Your task to perform on an android device: Go to location settings Image 0: 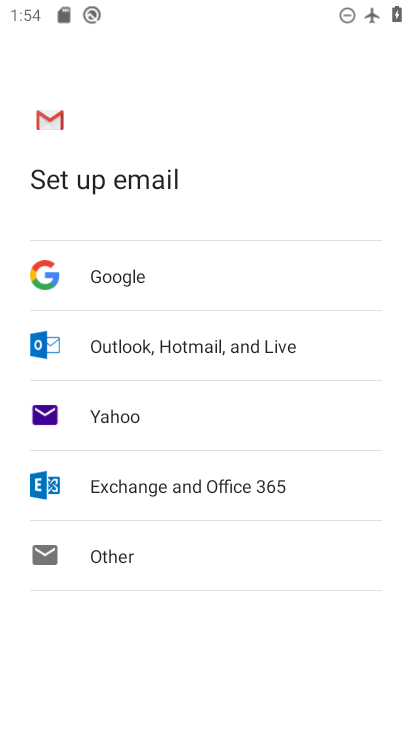
Step 0: press home button
Your task to perform on an android device: Go to location settings Image 1: 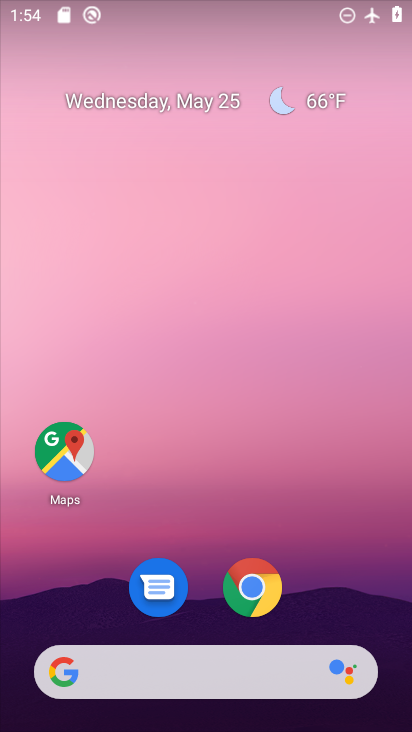
Step 1: drag from (336, 598) to (392, 136)
Your task to perform on an android device: Go to location settings Image 2: 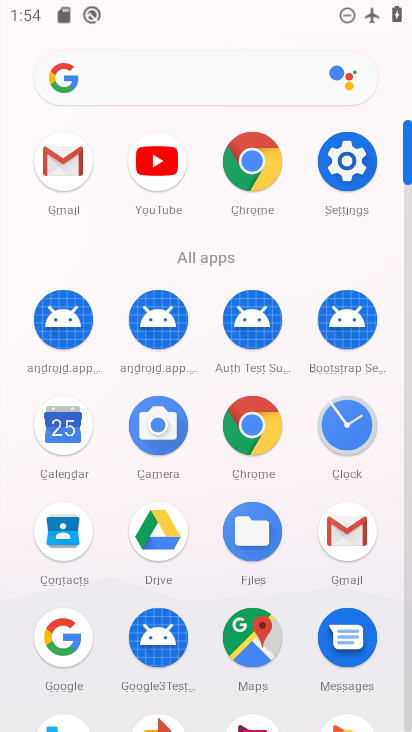
Step 2: click (350, 184)
Your task to perform on an android device: Go to location settings Image 3: 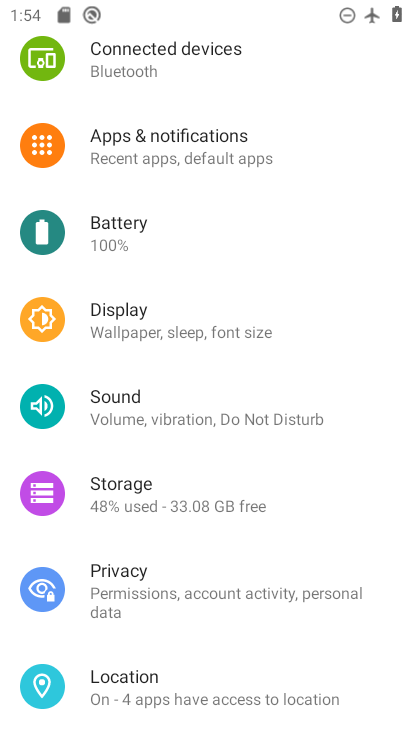
Step 3: drag from (380, 657) to (370, 500)
Your task to perform on an android device: Go to location settings Image 4: 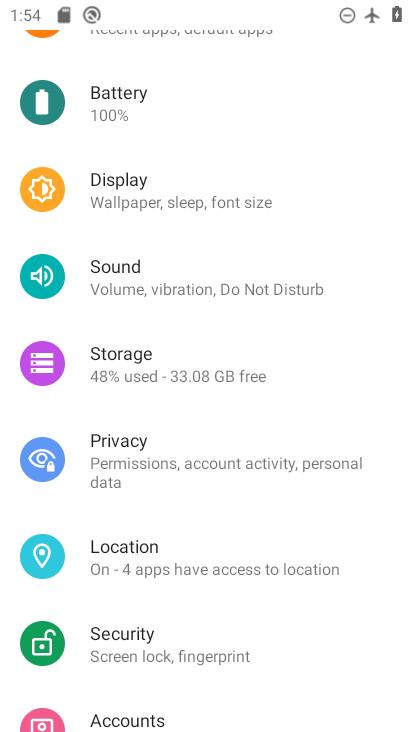
Step 4: drag from (377, 652) to (371, 451)
Your task to perform on an android device: Go to location settings Image 5: 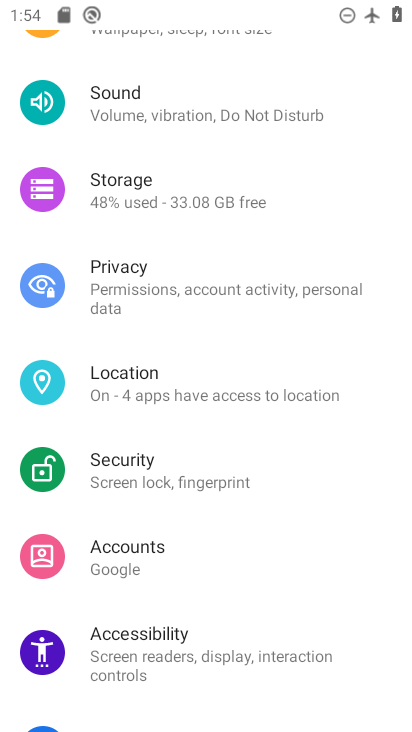
Step 5: drag from (379, 630) to (371, 421)
Your task to perform on an android device: Go to location settings Image 6: 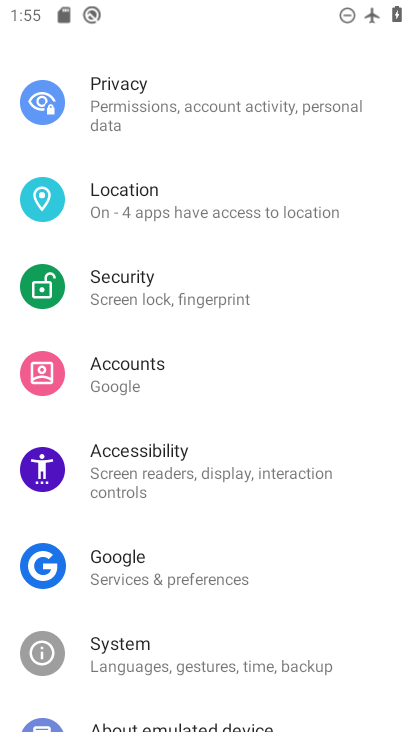
Step 6: drag from (371, 574) to (355, 464)
Your task to perform on an android device: Go to location settings Image 7: 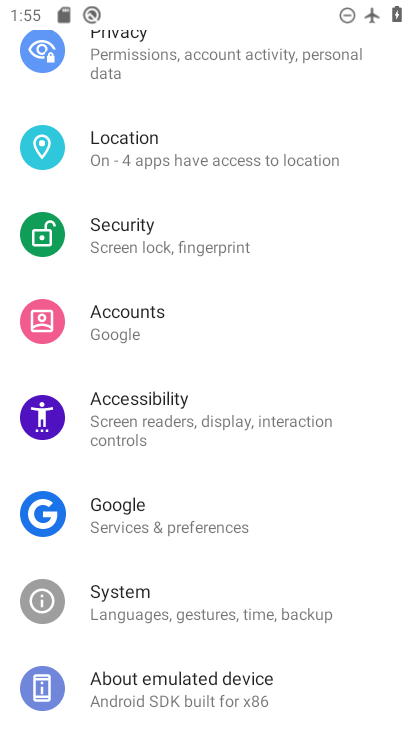
Step 7: drag from (356, 584) to (356, 412)
Your task to perform on an android device: Go to location settings Image 8: 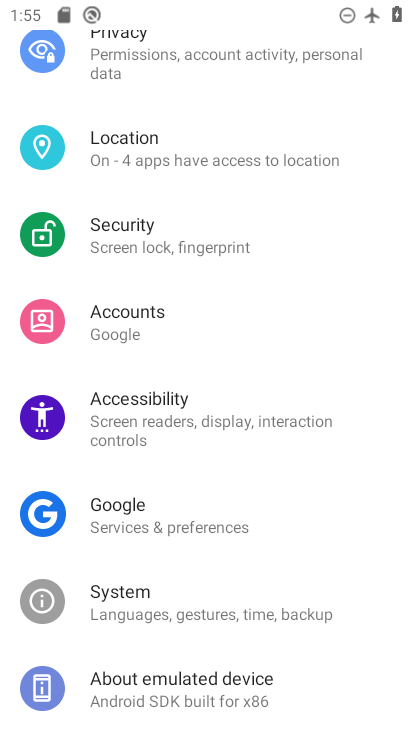
Step 8: drag from (344, 605) to (341, 419)
Your task to perform on an android device: Go to location settings Image 9: 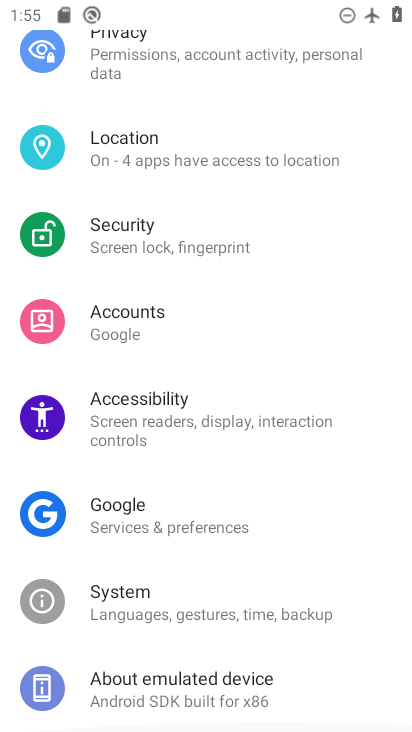
Step 9: drag from (330, 281) to (324, 462)
Your task to perform on an android device: Go to location settings Image 10: 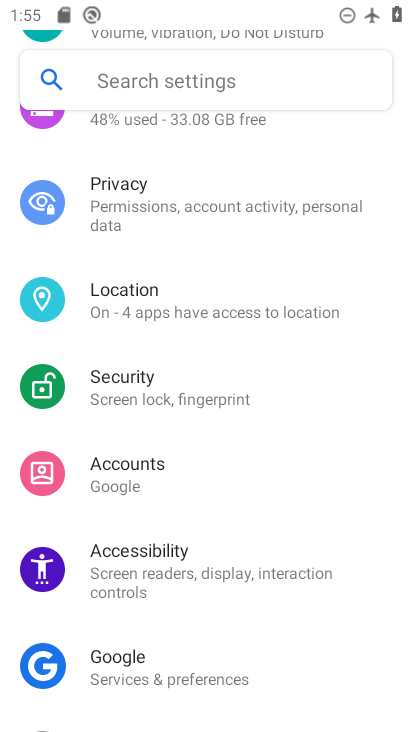
Step 10: drag from (335, 372) to (325, 449)
Your task to perform on an android device: Go to location settings Image 11: 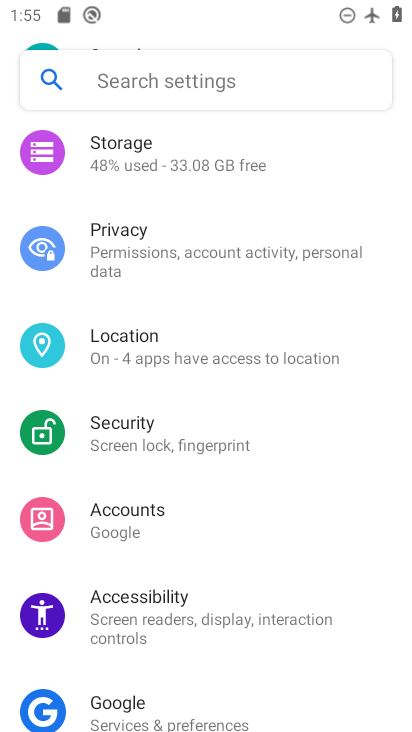
Step 11: click (320, 349)
Your task to perform on an android device: Go to location settings Image 12: 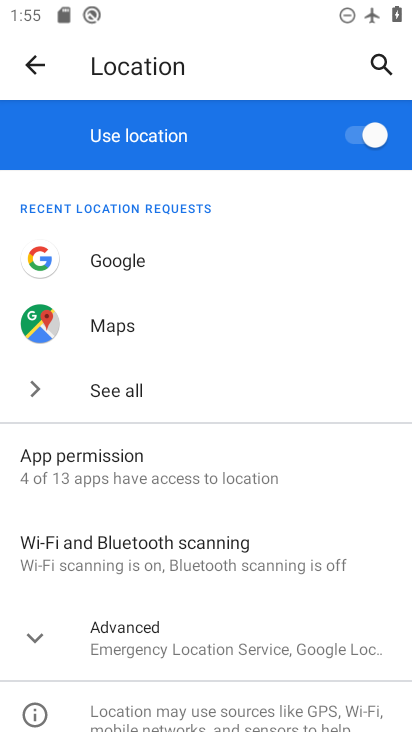
Step 12: task complete